Your task to perform on an android device: Check the news Image 0: 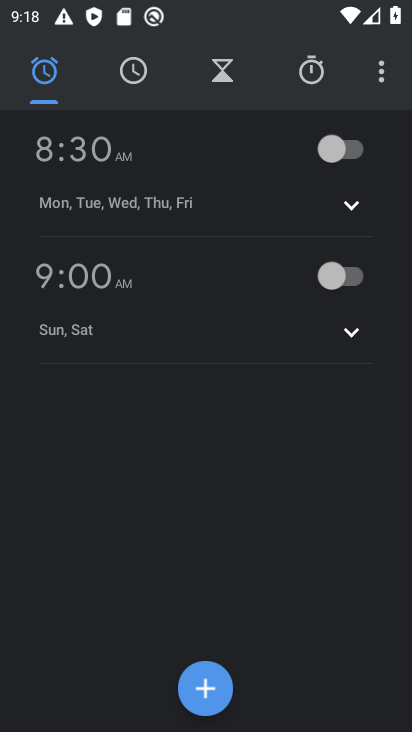
Step 0: press home button
Your task to perform on an android device: Check the news Image 1: 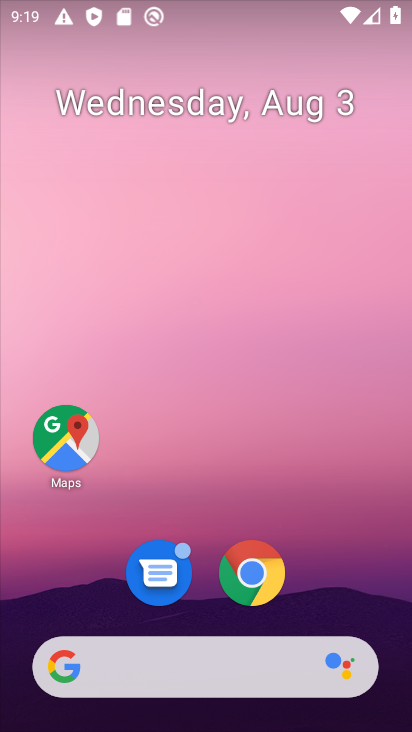
Step 1: drag from (203, 669) to (197, 133)
Your task to perform on an android device: Check the news Image 2: 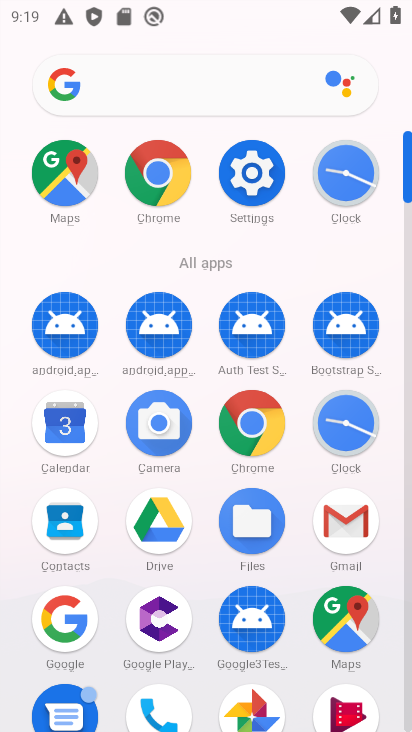
Step 2: click (131, 210)
Your task to perform on an android device: Check the news Image 3: 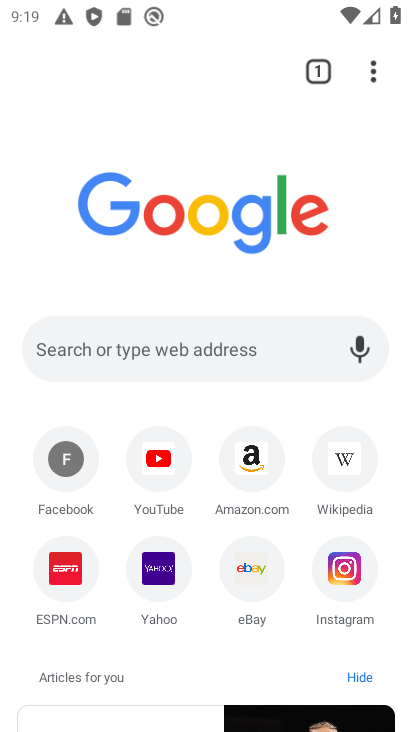
Step 3: click (176, 352)
Your task to perform on an android device: Check the news Image 4: 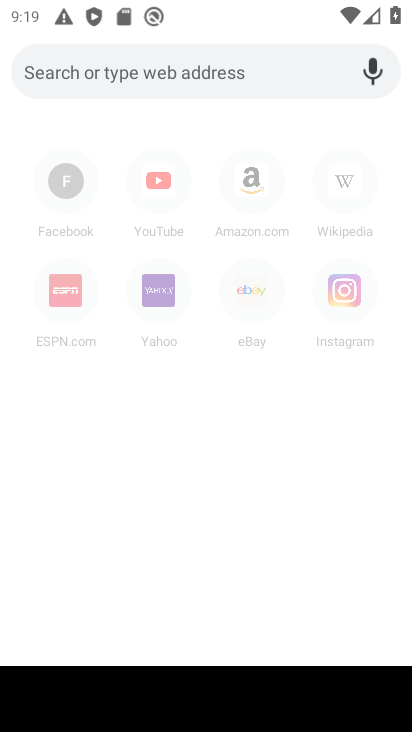
Step 4: type "news"
Your task to perform on an android device: Check the news Image 5: 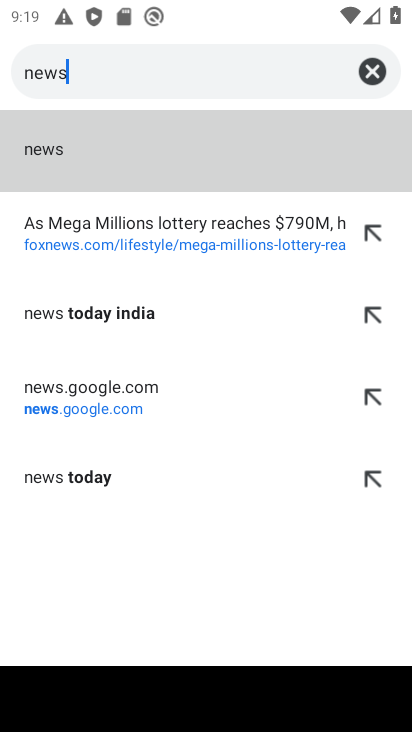
Step 5: click (117, 162)
Your task to perform on an android device: Check the news Image 6: 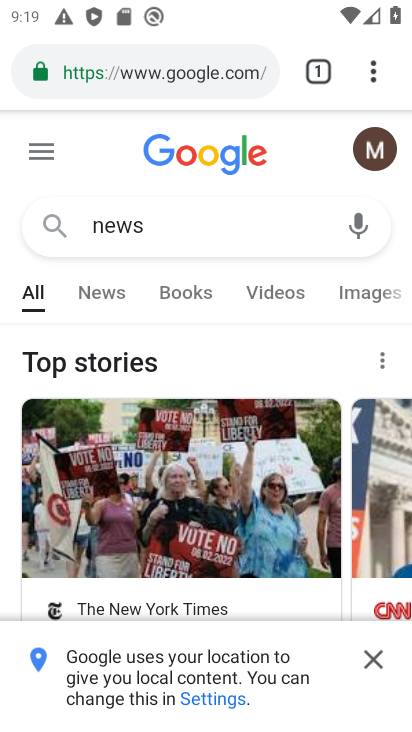
Step 6: task complete